Your task to perform on an android device: check data usage Image 0: 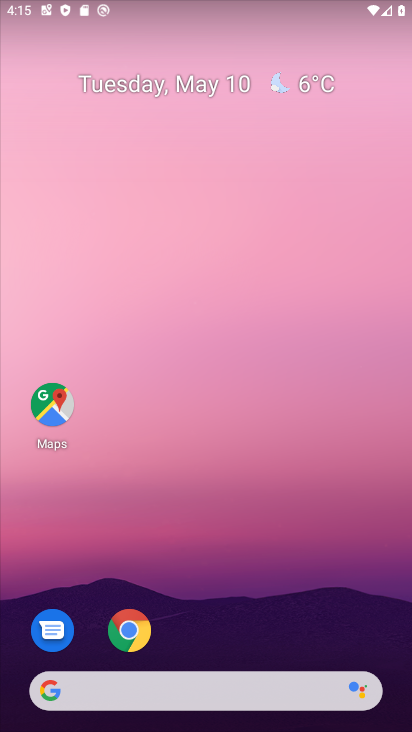
Step 0: drag from (336, 575) to (267, 154)
Your task to perform on an android device: check data usage Image 1: 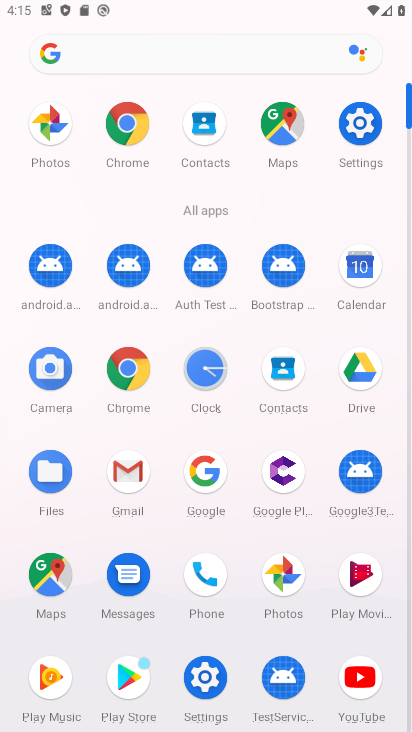
Step 1: click (370, 126)
Your task to perform on an android device: check data usage Image 2: 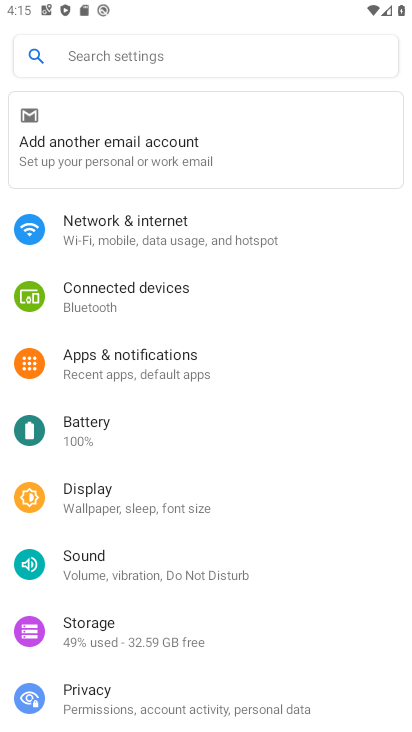
Step 2: click (204, 227)
Your task to perform on an android device: check data usage Image 3: 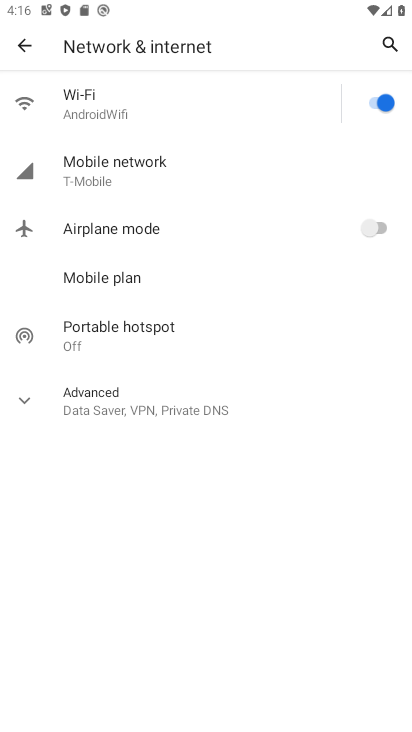
Step 3: click (167, 170)
Your task to perform on an android device: check data usage Image 4: 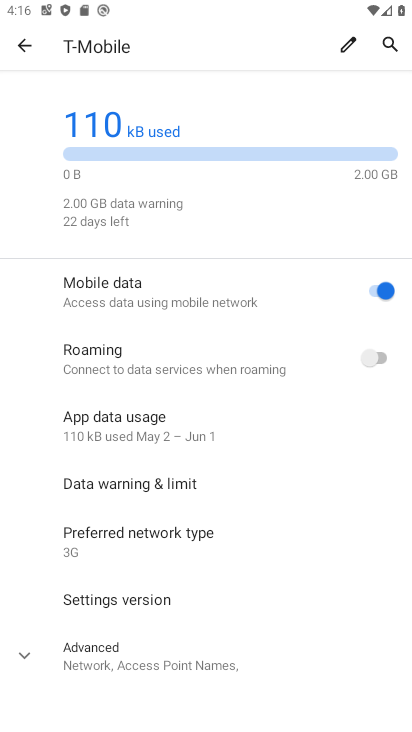
Step 4: task complete